Your task to perform on an android device: Open calendar and show me the fourth week of next month Image 0: 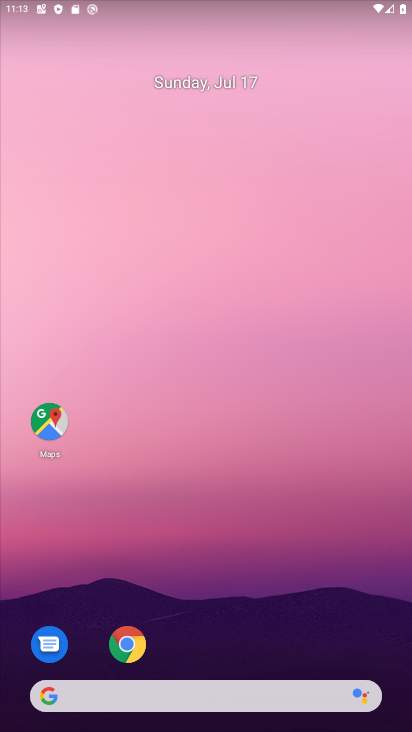
Step 0: click (270, 116)
Your task to perform on an android device: Open calendar and show me the fourth week of next month Image 1: 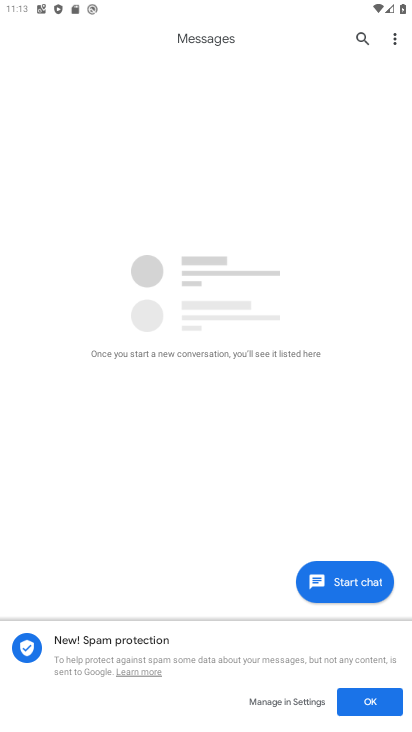
Step 1: press home button
Your task to perform on an android device: Open calendar and show me the fourth week of next month Image 2: 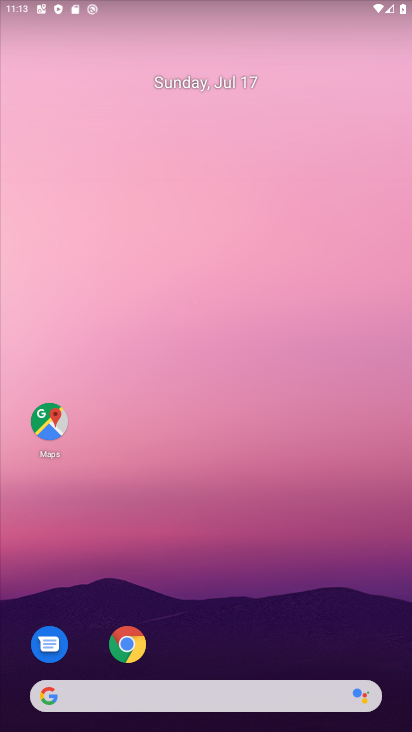
Step 2: drag from (315, 543) to (306, 34)
Your task to perform on an android device: Open calendar and show me the fourth week of next month Image 3: 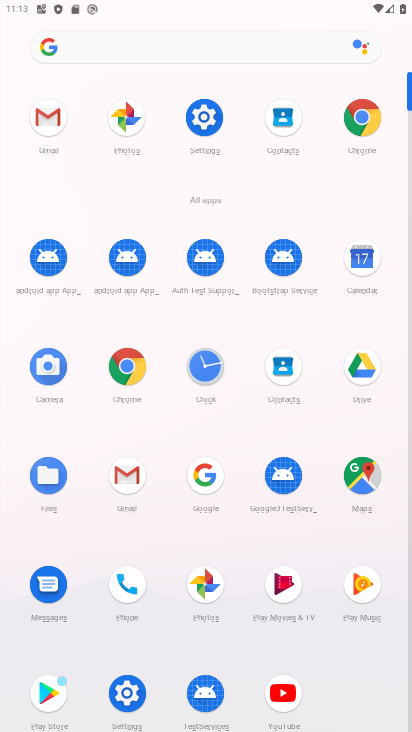
Step 3: click (366, 257)
Your task to perform on an android device: Open calendar and show me the fourth week of next month Image 4: 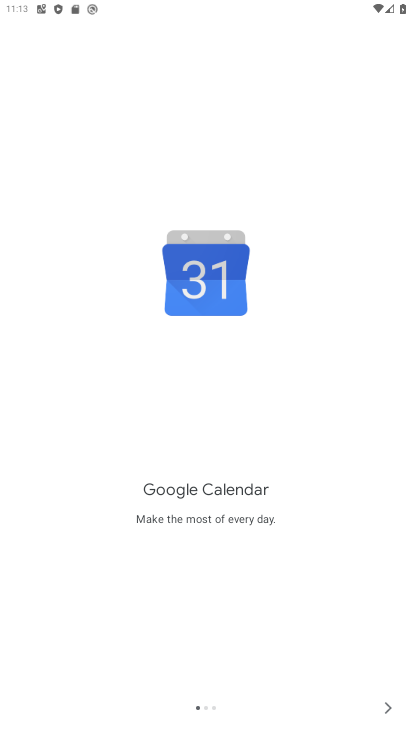
Step 4: click (389, 710)
Your task to perform on an android device: Open calendar and show me the fourth week of next month Image 5: 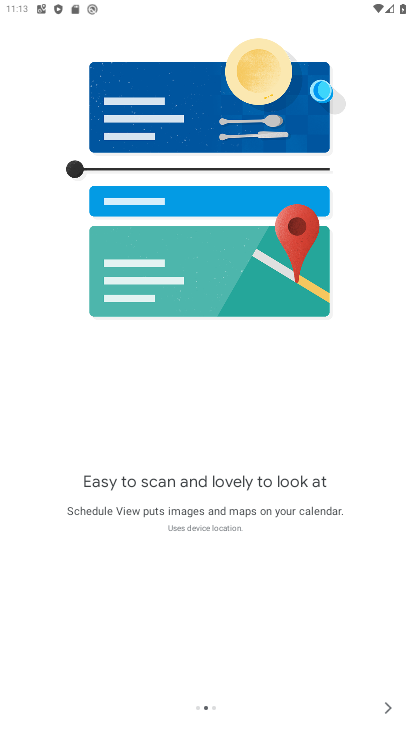
Step 5: click (389, 710)
Your task to perform on an android device: Open calendar and show me the fourth week of next month Image 6: 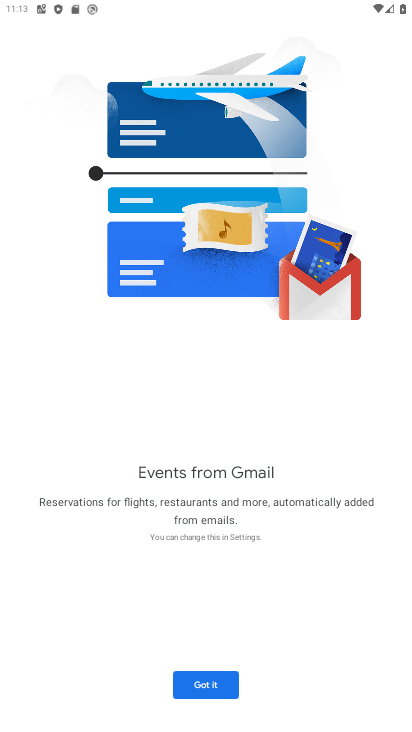
Step 6: click (190, 681)
Your task to perform on an android device: Open calendar and show me the fourth week of next month Image 7: 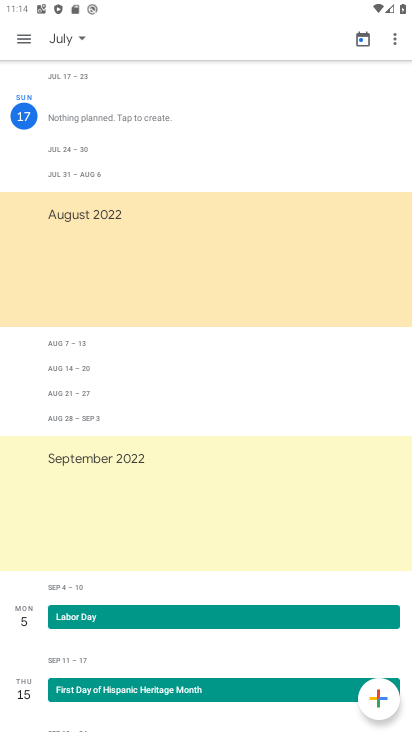
Step 7: click (55, 36)
Your task to perform on an android device: Open calendar and show me the fourth week of next month Image 8: 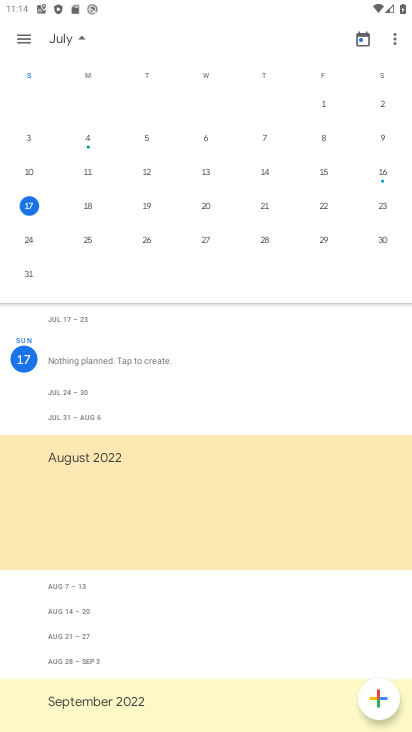
Step 8: drag from (386, 221) to (72, 221)
Your task to perform on an android device: Open calendar and show me the fourth week of next month Image 9: 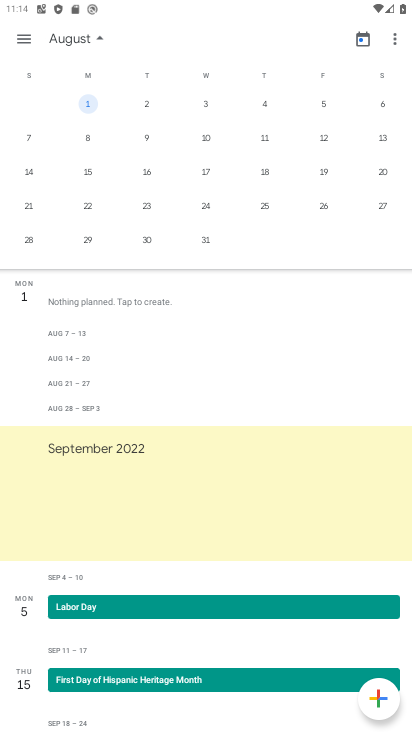
Step 9: click (279, 207)
Your task to perform on an android device: Open calendar and show me the fourth week of next month Image 10: 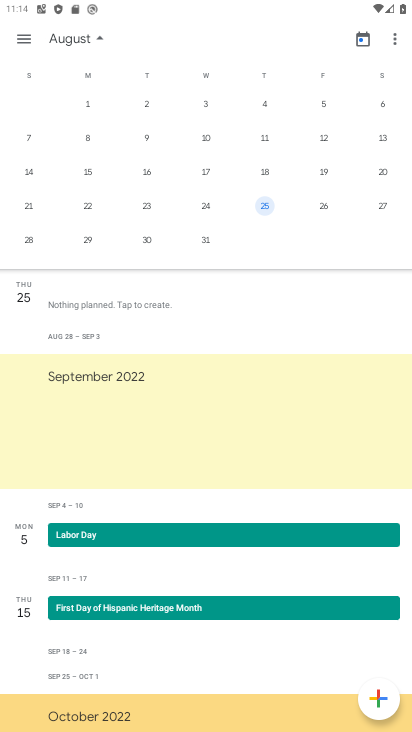
Step 10: click (15, 40)
Your task to perform on an android device: Open calendar and show me the fourth week of next month Image 11: 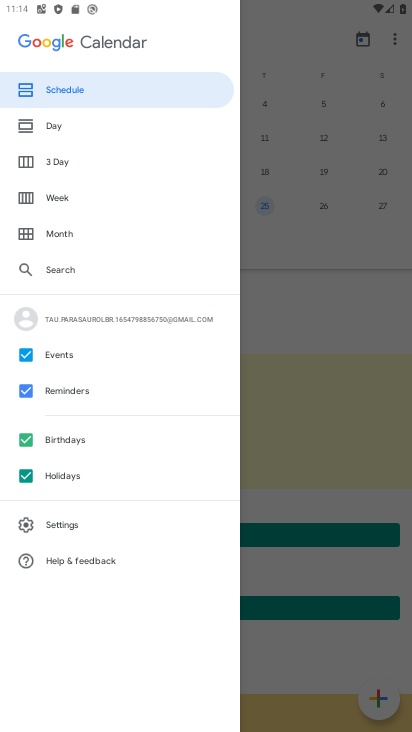
Step 11: click (62, 197)
Your task to perform on an android device: Open calendar and show me the fourth week of next month Image 12: 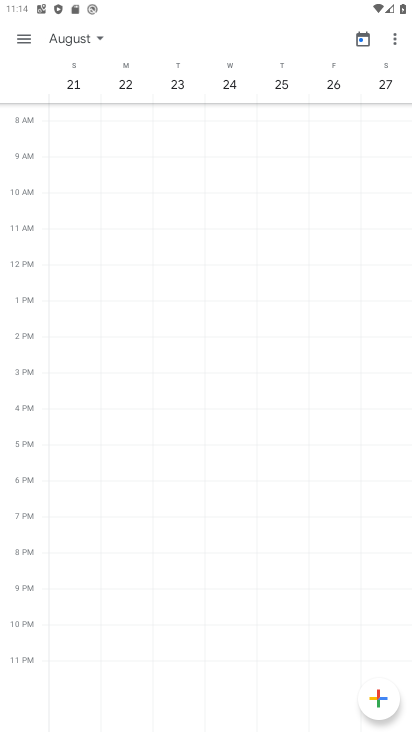
Step 12: task complete